Your task to perform on an android device: open chrome privacy settings Image 0: 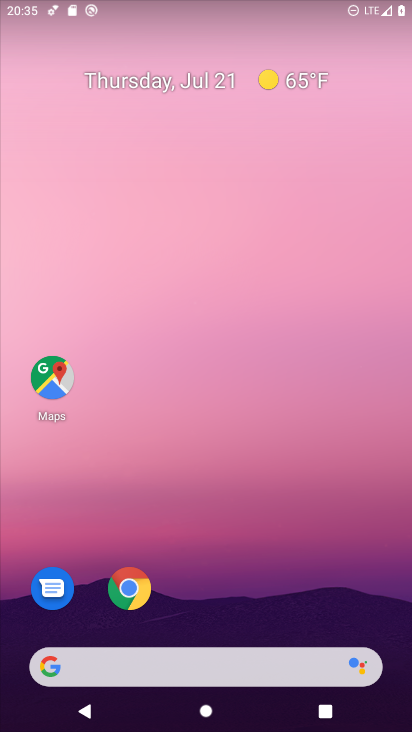
Step 0: click (144, 592)
Your task to perform on an android device: open chrome privacy settings Image 1: 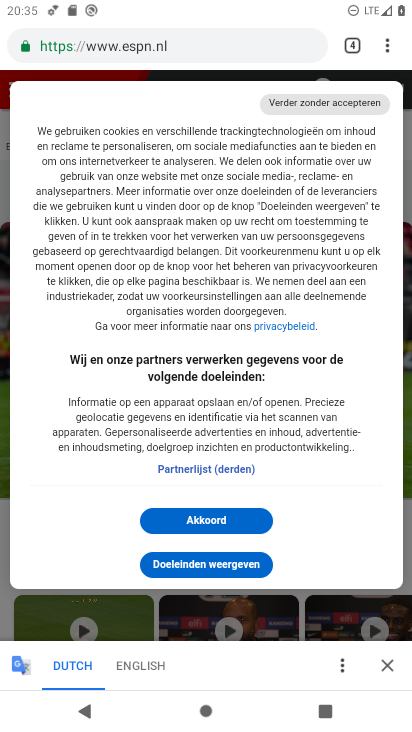
Step 1: drag from (388, 52) to (238, 550)
Your task to perform on an android device: open chrome privacy settings Image 2: 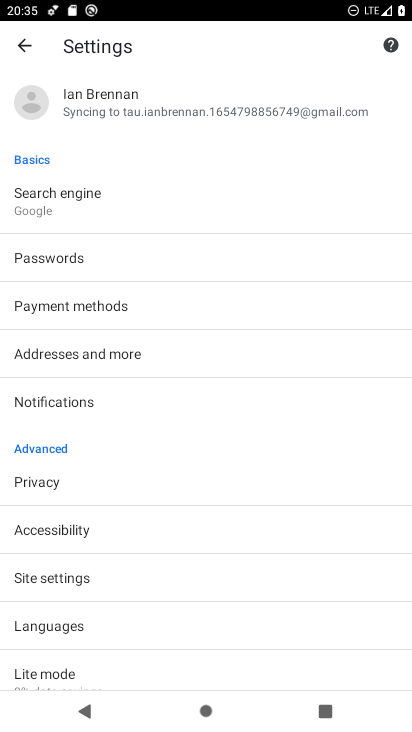
Step 2: click (34, 475)
Your task to perform on an android device: open chrome privacy settings Image 3: 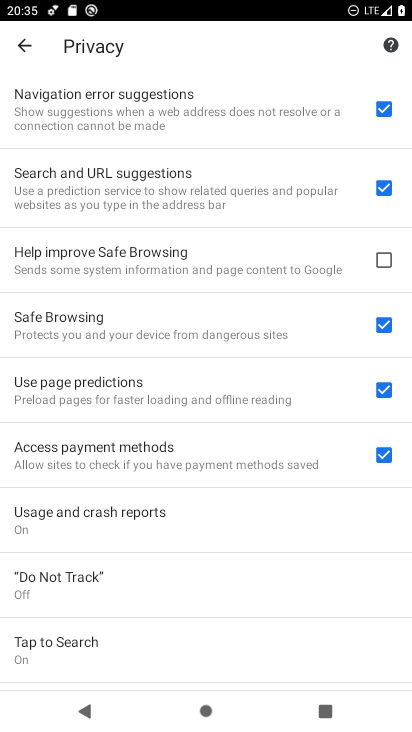
Step 3: task complete